Your task to perform on an android device: toggle notifications settings in the gmail app Image 0: 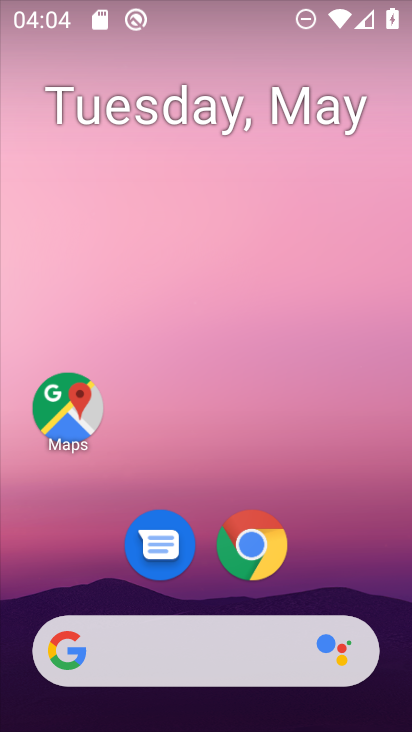
Step 0: drag from (400, 626) to (344, 182)
Your task to perform on an android device: toggle notifications settings in the gmail app Image 1: 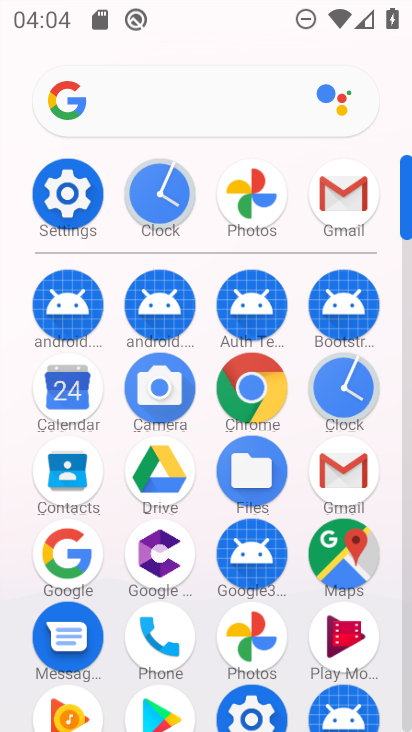
Step 1: click (344, 466)
Your task to perform on an android device: toggle notifications settings in the gmail app Image 2: 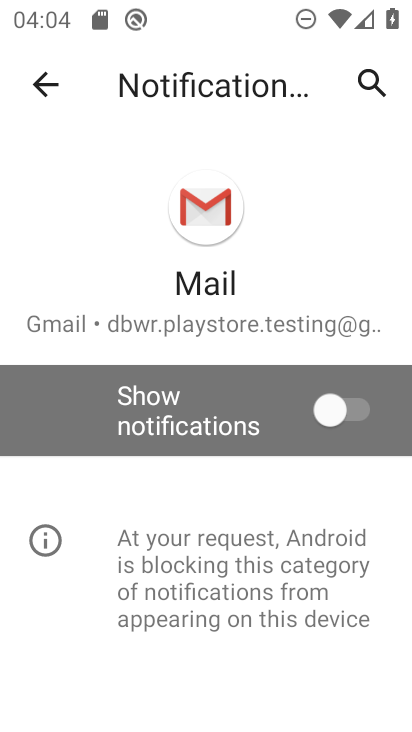
Step 2: click (364, 406)
Your task to perform on an android device: toggle notifications settings in the gmail app Image 3: 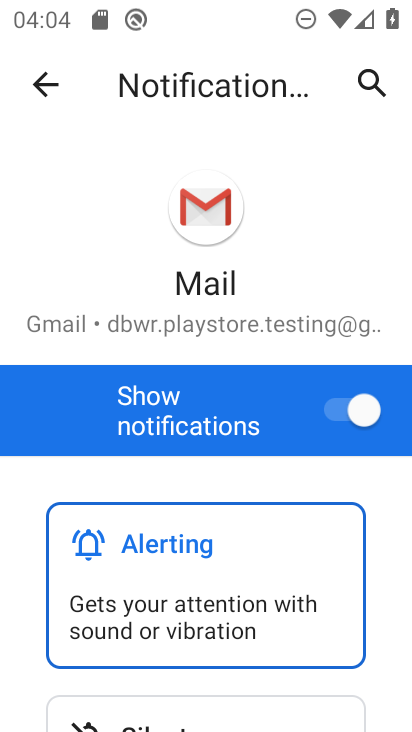
Step 3: task complete